Your task to perform on an android device: change notifications settings Image 0: 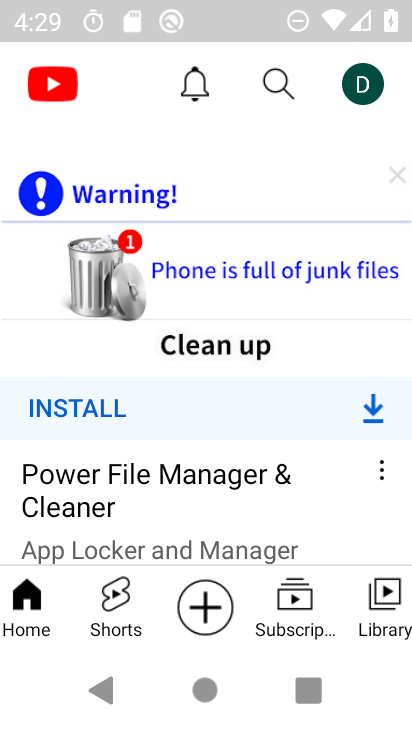
Step 0: press home button
Your task to perform on an android device: change notifications settings Image 1: 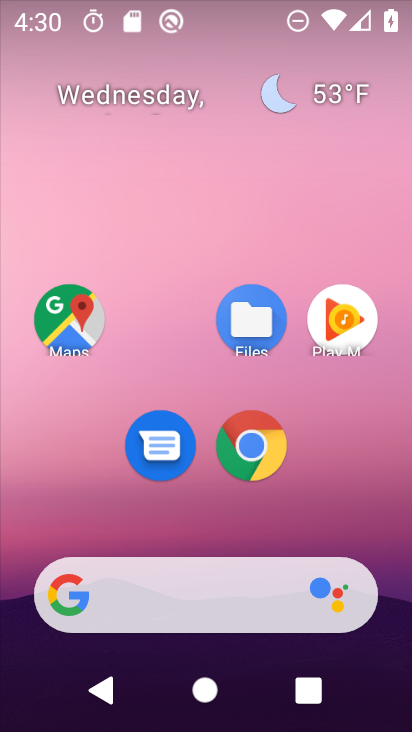
Step 1: drag from (294, 506) to (246, 8)
Your task to perform on an android device: change notifications settings Image 2: 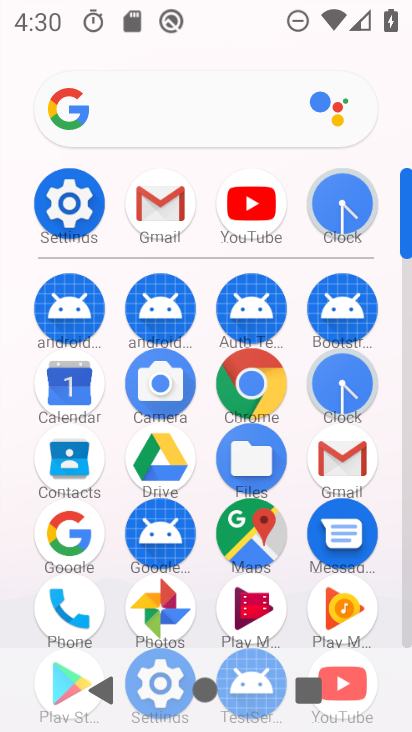
Step 2: click (64, 210)
Your task to perform on an android device: change notifications settings Image 3: 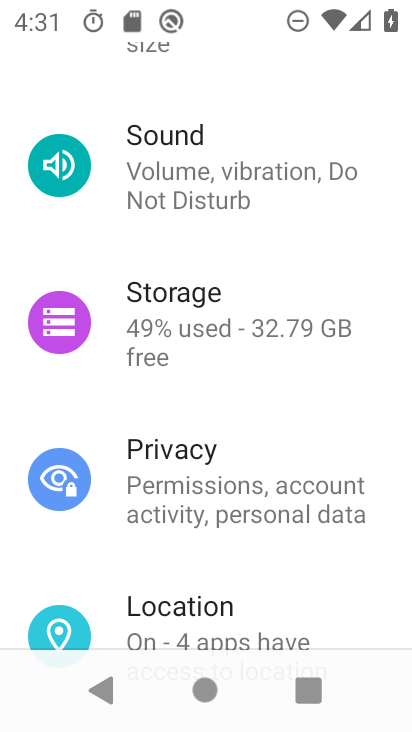
Step 3: drag from (276, 501) to (265, 245)
Your task to perform on an android device: change notifications settings Image 4: 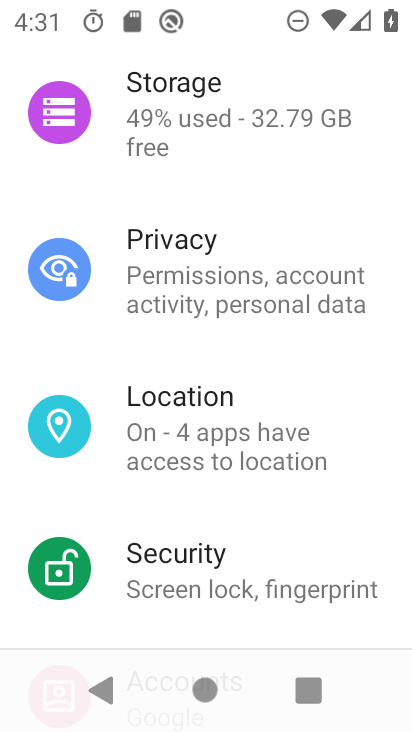
Step 4: drag from (298, 528) to (328, 70)
Your task to perform on an android device: change notifications settings Image 5: 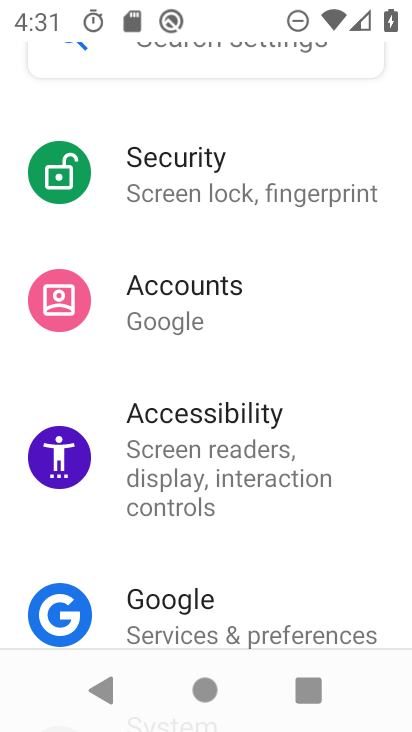
Step 5: drag from (262, 554) to (281, 143)
Your task to perform on an android device: change notifications settings Image 6: 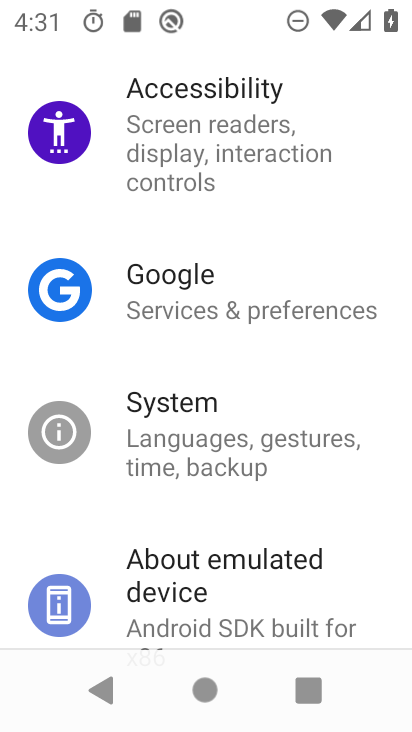
Step 6: drag from (275, 172) to (227, 670)
Your task to perform on an android device: change notifications settings Image 7: 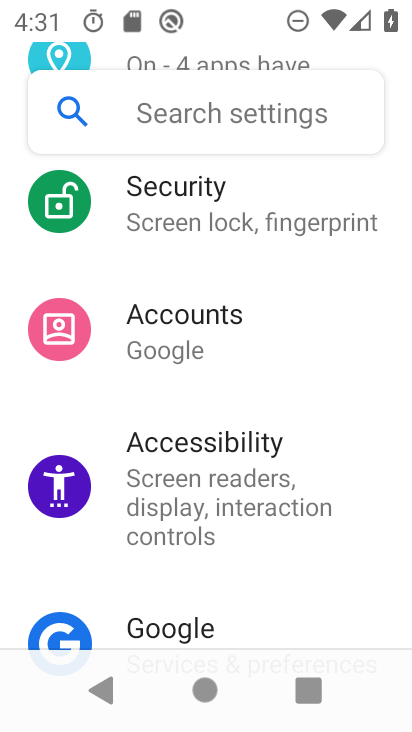
Step 7: drag from (314, 226) to (287, 504)
Your task to perform on an android device: change notifications settings Image 8: 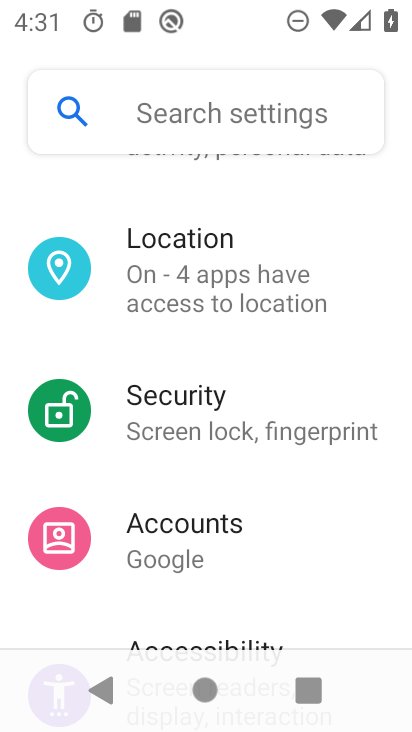
Step 8: drag from (252, 321) to (257, 586)
Your task to perform on an android device: change notifications settings Image 9: 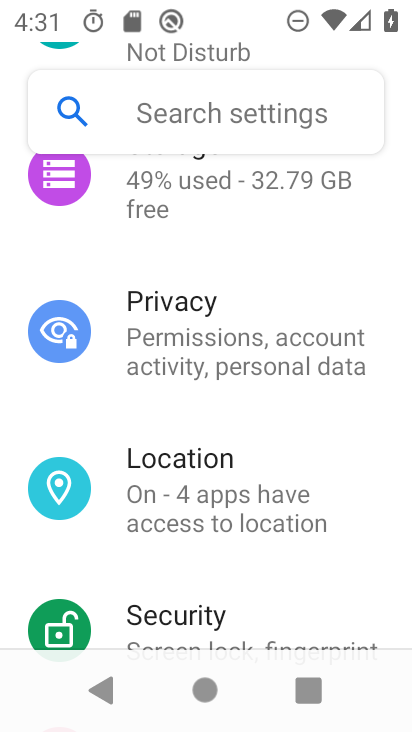
Step 9: drag from (273, 279) to (267, 550)
Your task to perform on an android device: change notifications settings Image 10: 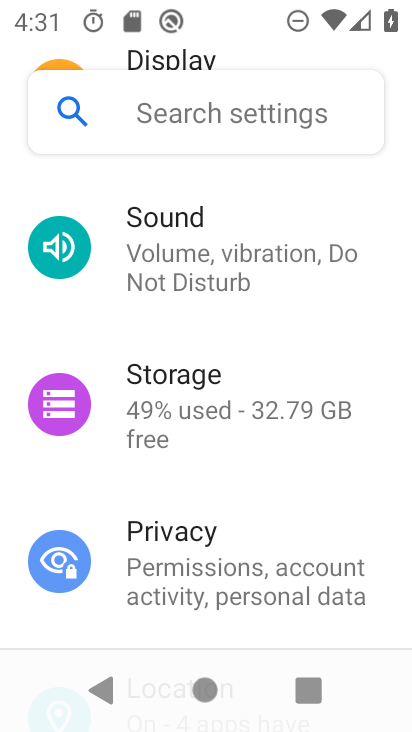
Step 10: drag from (290, 321) to (259, 588)
Your task to perform on an android device: change notifications settings Image 11: 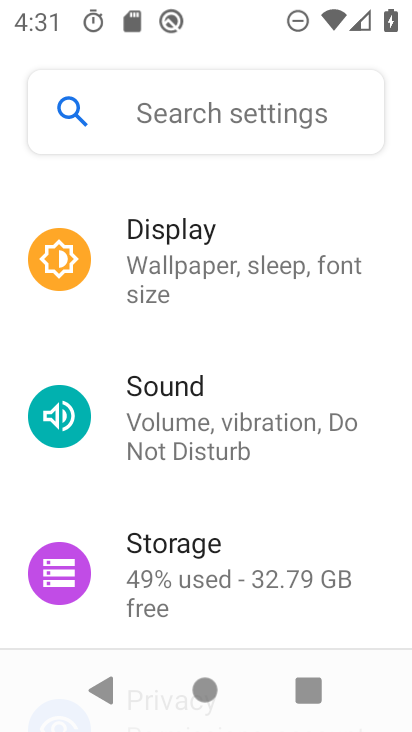
Step 11: drag from (236, 255) to (250, 571)
Your task to perform on an android device: change notifications settings Image 12: 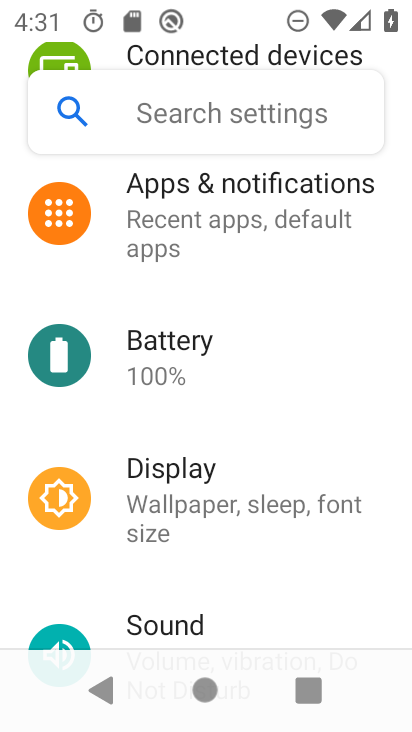
Step 12: click (263, 204)
Your task to perform on an android device: change notifications settings Image 13: 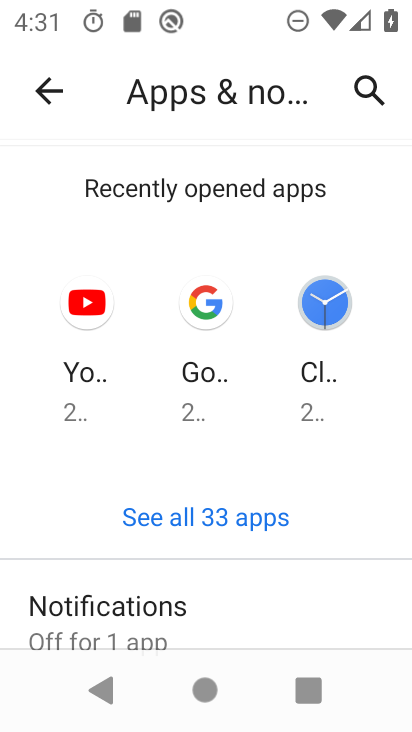
Step 13: drag from (219, 589) to (197, 256)
Your task to perform on an android device: change notifications settings Image 14: 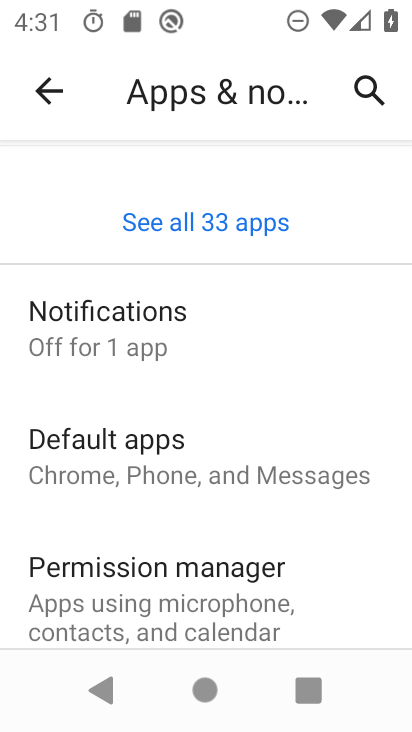
Step 14: click (159, 328)
Your task to perform on an android device: change notifications settings Image 15: 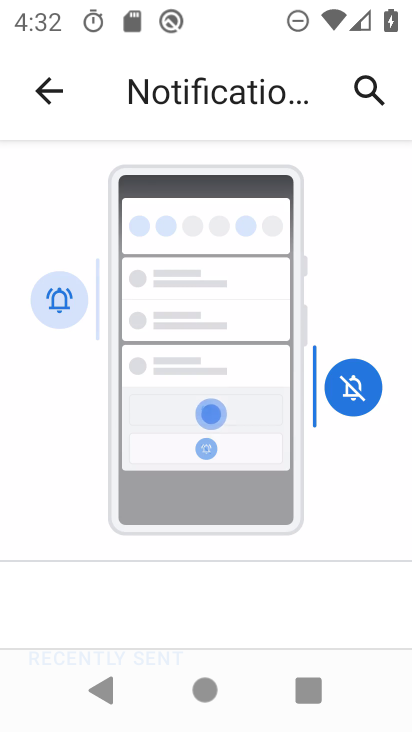
Step 15: drag from (286, 591) to (277, 138)
Your task to perform on an android device: change notifications settings Image 16: 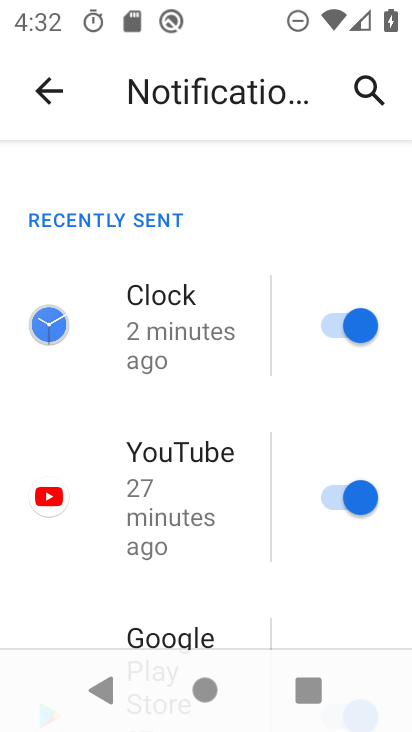
Step 16: drag from (223, 562) to (221, 343)
Your task to perform on an android device: change notifications settings Image 17: 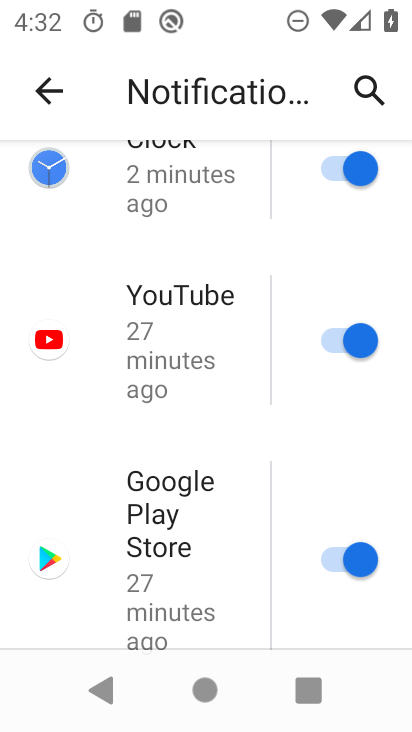
Step 17: click (337, 345)
Your task to perform on an android device: change notifications settings Image 18: 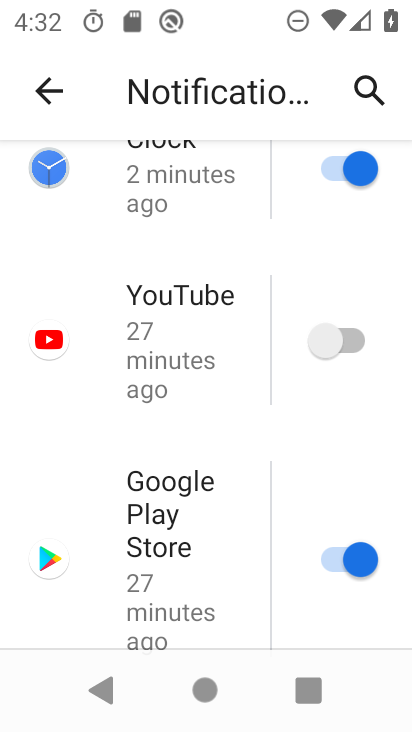
Step 18: task complete